Your task to perform on an android device: Open sound settings Image 0: 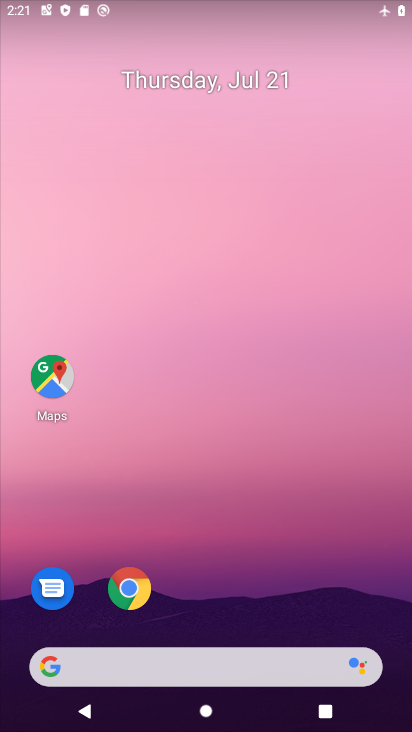
Step 0: drag from (208, 544) to (292, 162)
Your task to perform on an android device: Open sound settings Image 1: 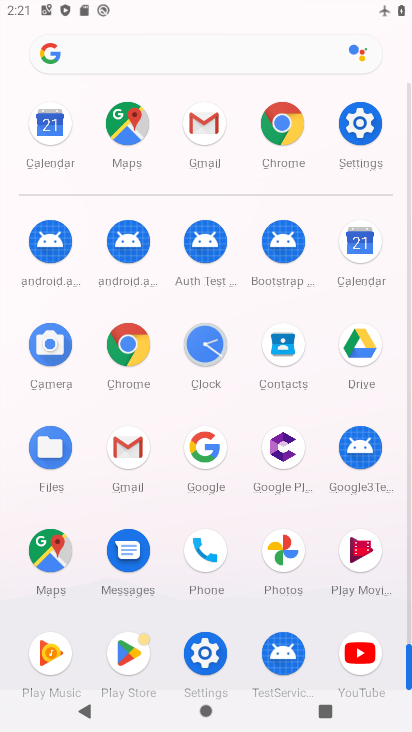
Step 1: click (357, 122)
Your task to perform on an android device: Open sound settings Image 2: 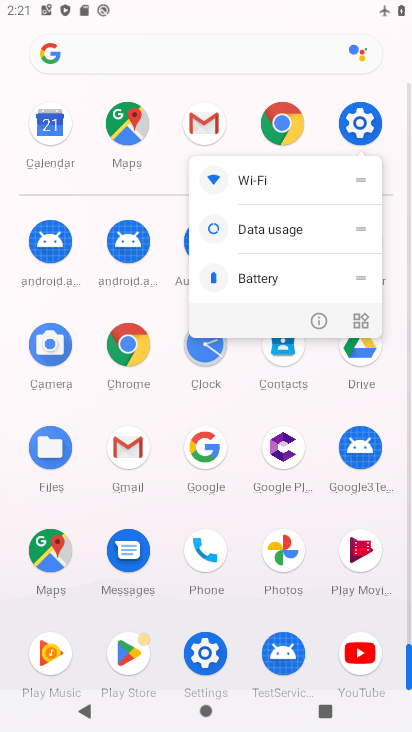
Step 2: click (308, 322)
Your task to perform on an android device: Open sound settings Image 3: 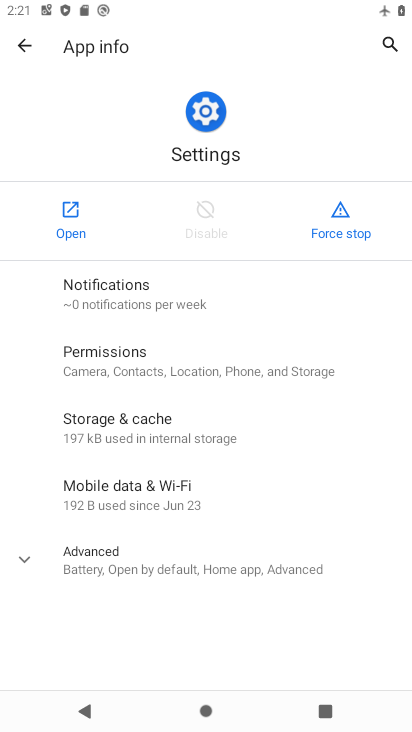
Step 3: click (67, 212)
Your task to perform on an android device: Open sound settings Image 4: 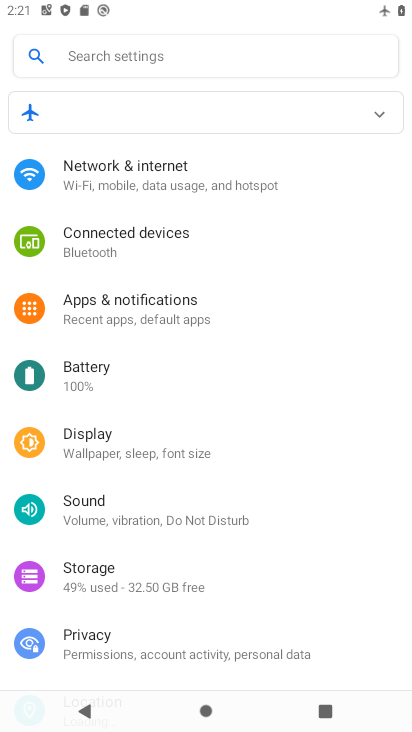
Step 4: click (92, 495)
Your task to perform on an android device: Open sound settings Image 5: 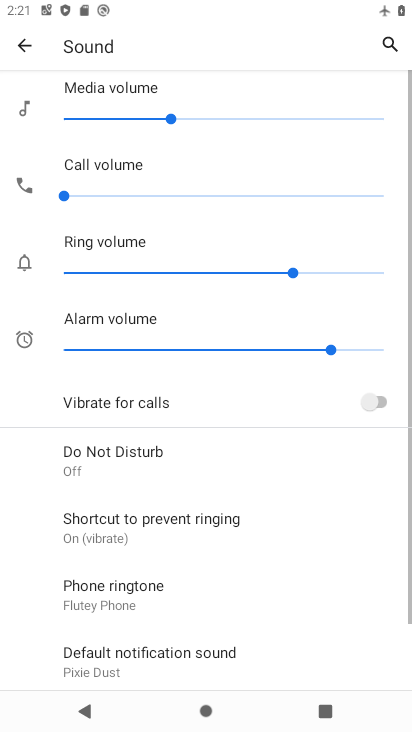
Step 5: drag from (177, 506) to (265, 90)
Your task to perform on an android device: Open sound settings Image 6: 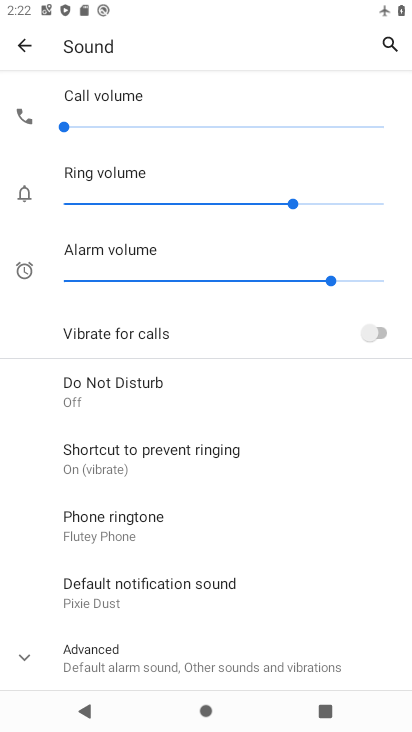
Step 6: click (120, 671)
Your task to perform on an android device: Open sound settings Image 7: 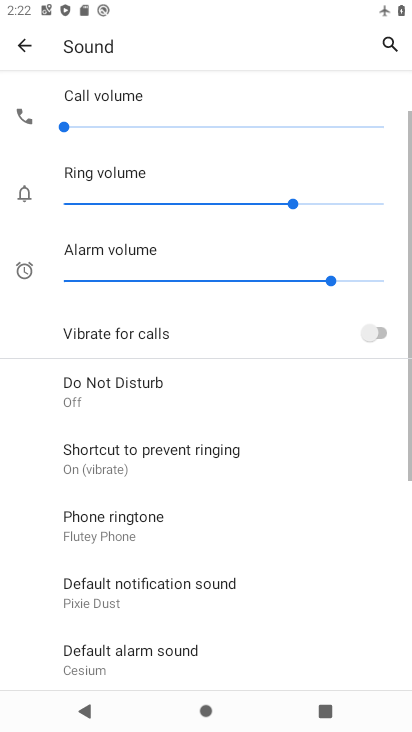
Step 7: task complete